Your task to perform on an android device: toggle notification dots Image 0: 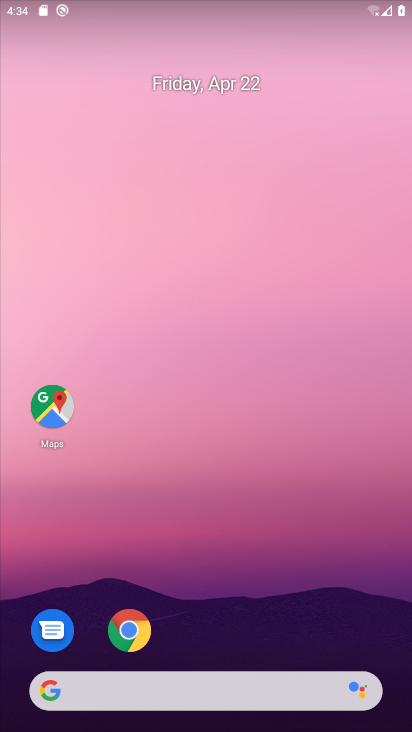
Step 0: drag from (240, 543) to (239, 42)
Your task to perform on an android device: toggle notification dots Image 1: 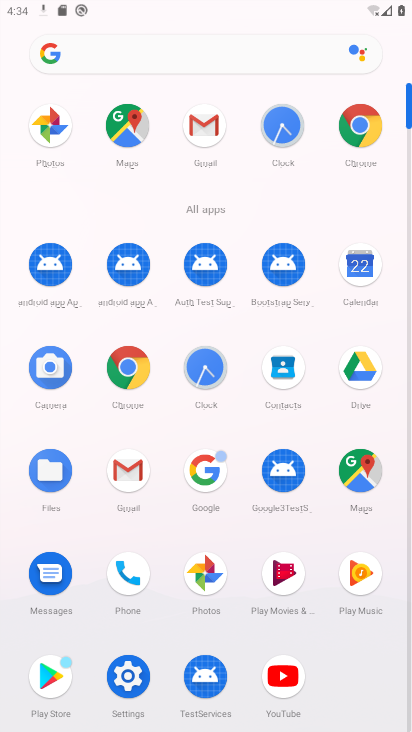
Step 1: click (123, 681)
Your task to perform on an android device: toggle notification dots Image 2: 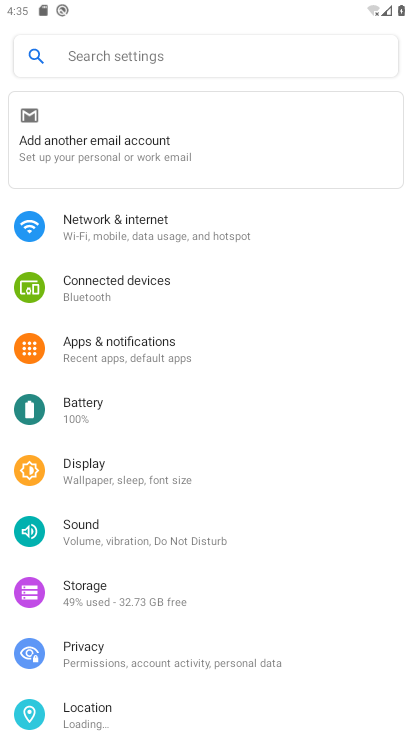
Step 2: click (122, 356)
Your task to perform on an android device: toggle notification dots Image 3: 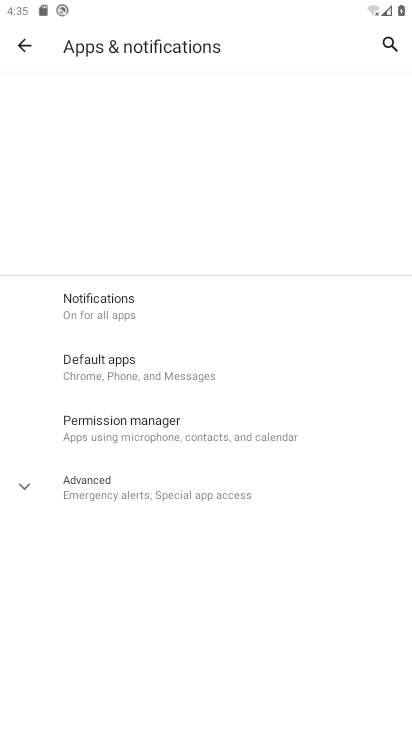
Step 3: click (122, 299)
Your task to perform on an android device: toggle notification dots Image 4: 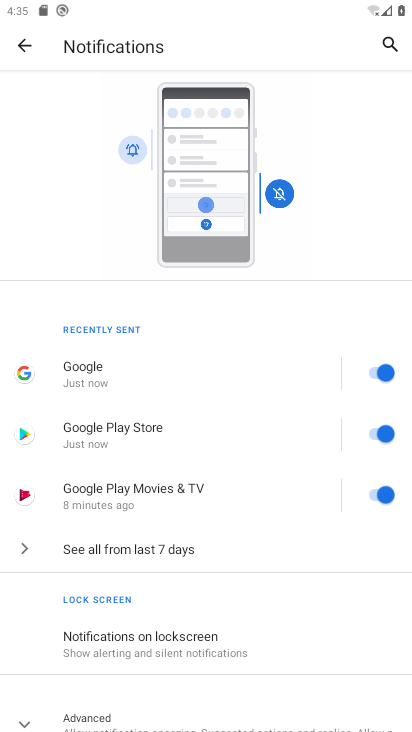
Step 4: drag from (167, 668) to (171, 253)
Your task to perform on an android device: toggle notification dots Image 5: 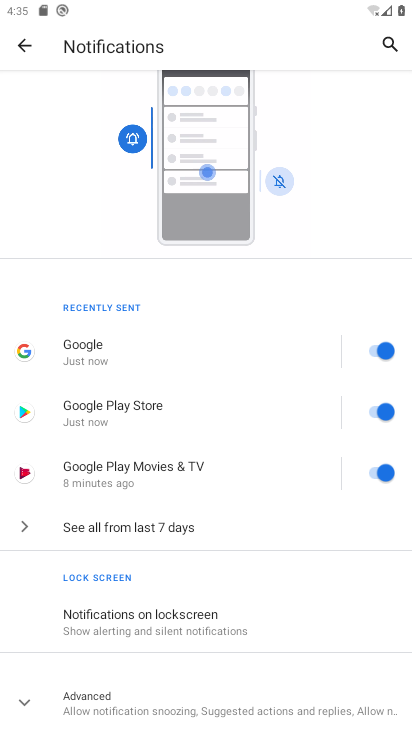
Step 5: click (141, 697)
Your task to perform on an android device: toggle notification dots Image 6: 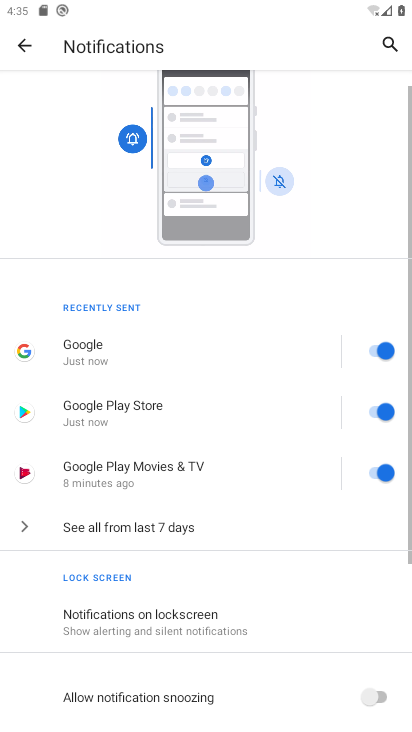
Step 6: drag from (144, 660) to (188, 146)
Your task to perform on an android device: toggle notification dots Image 7: 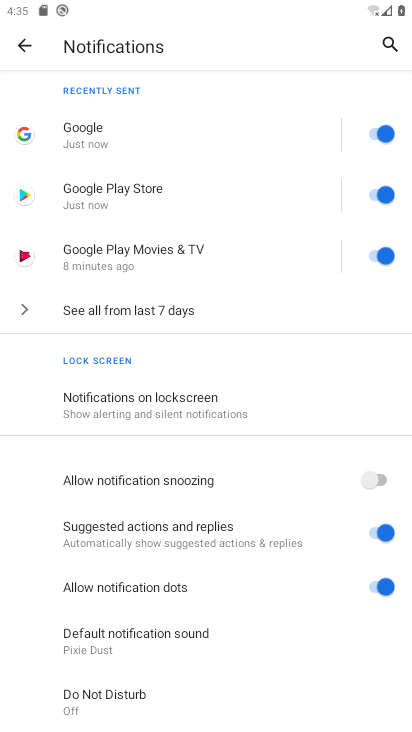
Step 7: click (376, 579)
Your task to perform on an android device: toggle notification dots Image 8: 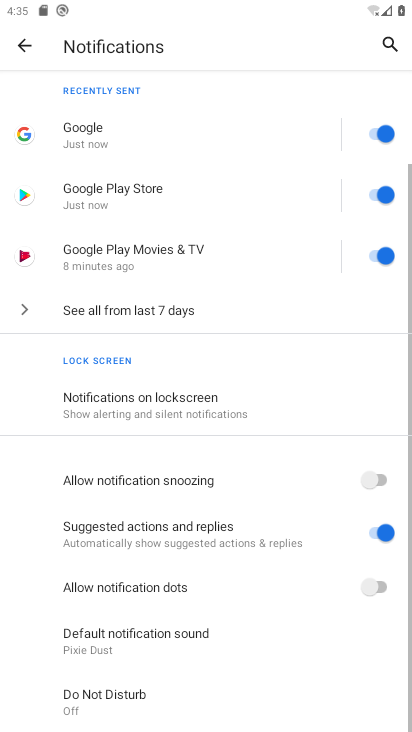
Step 8: task complete